Your task to perform on an android device: turn on data saver in the chrome app Image 0: 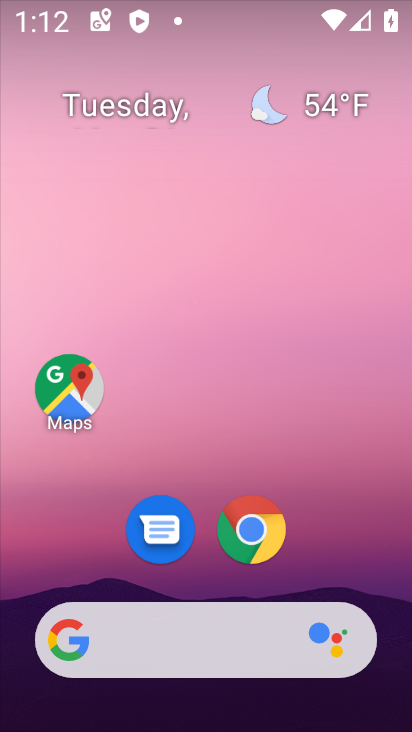
Step 0: click (254, 528)
Your task to perform on an android device: turn on data saver in the chrome app Image 1: 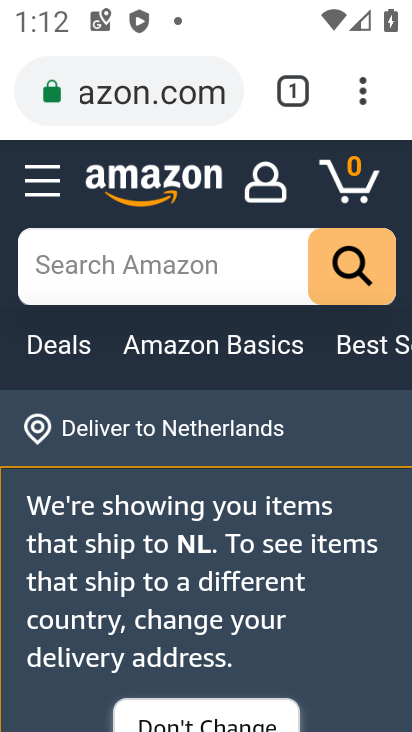
Step 1: click (365, 88)
Your task to perform on an android device: turn on data saver in the chrome app Image 2: 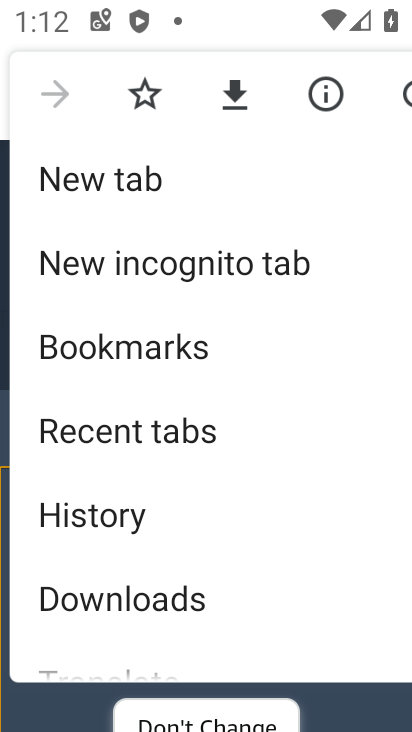
Step 2: drag from (133, 469) to (178, 365)
Your task to perform on an android device: turn on data saver in the chrome app Image 3: 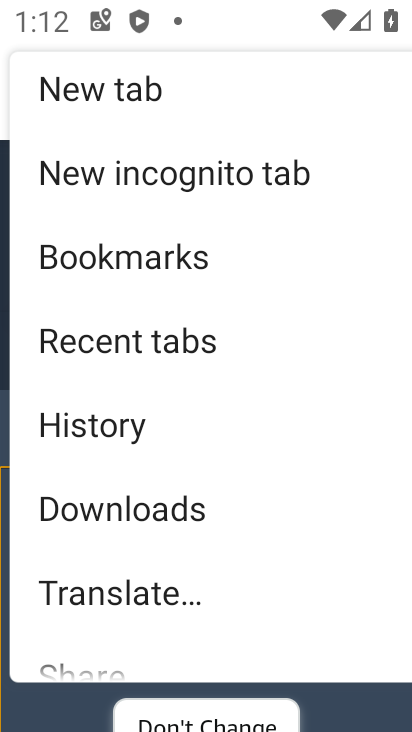
Step 3: drag from (119, 456) to (182, 371)
Your task to perform on an android device: turn on data saver in the chrome app Image 4: 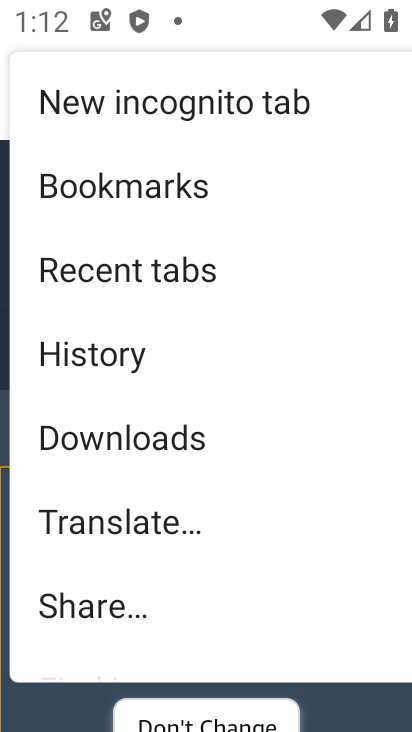
Step 4: drag from (116, 473) to (181, 380)
Your task to perform on an android device: turn on data saver in the chrome app Image 5: 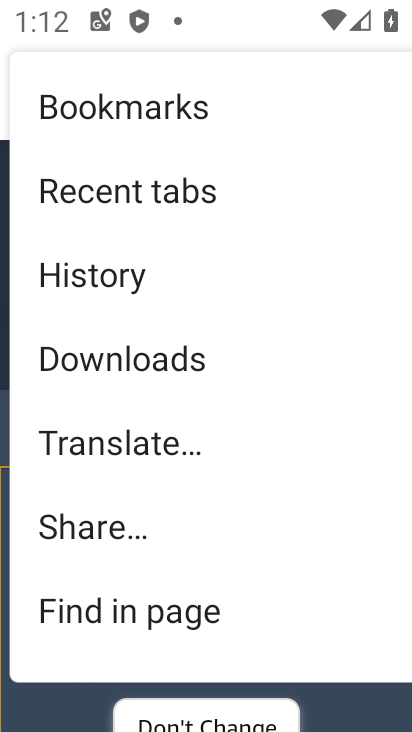
Step 5: drag from (122, 478) to (191, 388)
Your task to perform on an android device: turn on data saver in the chrome app Image 6: 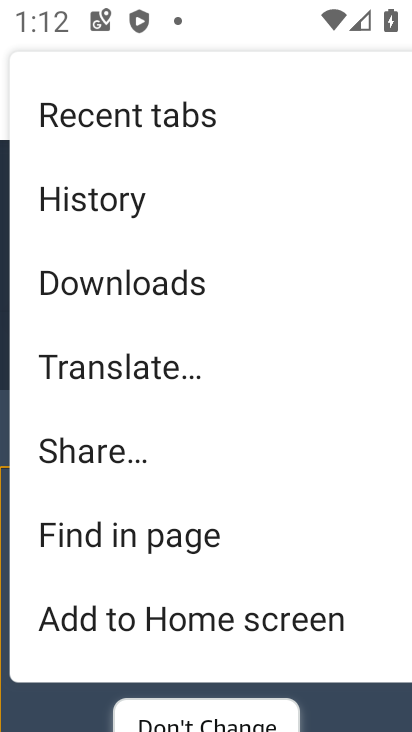
Step 6: drag from (112, 486) to (189, 396)
Your task to perform on an android device: turn on data saver in the chrome app Image 7: 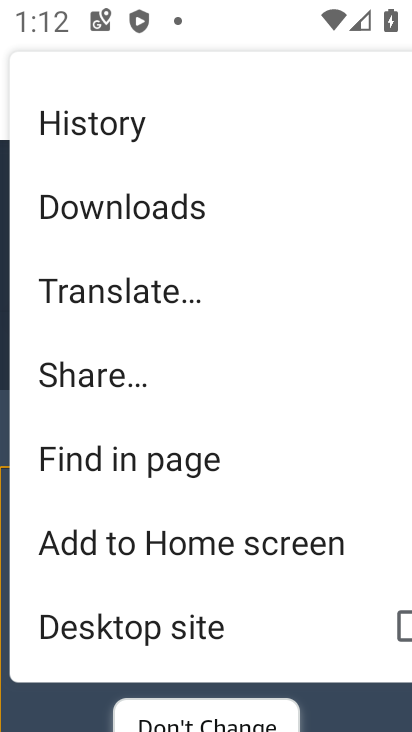
Step 7: drag from (136, 482) to (205, 394)
Your task to perform on an android device: turn on data saver in the chrome app Image 8: 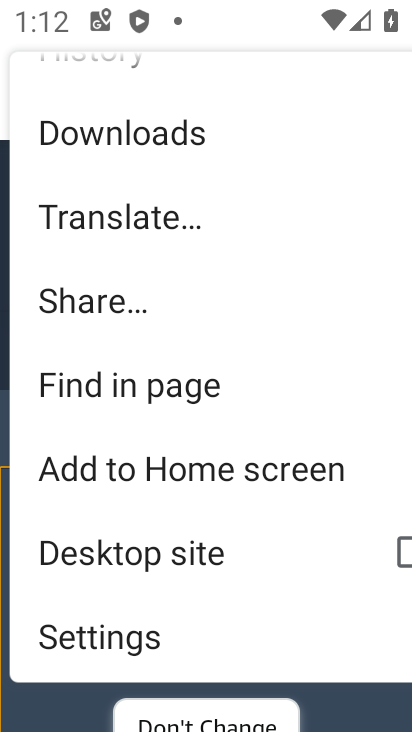
Step 8: drag from (116, 526) to (260, 376)
Your task to perform on an android device: turn on data saver in the chrome app Image 9: 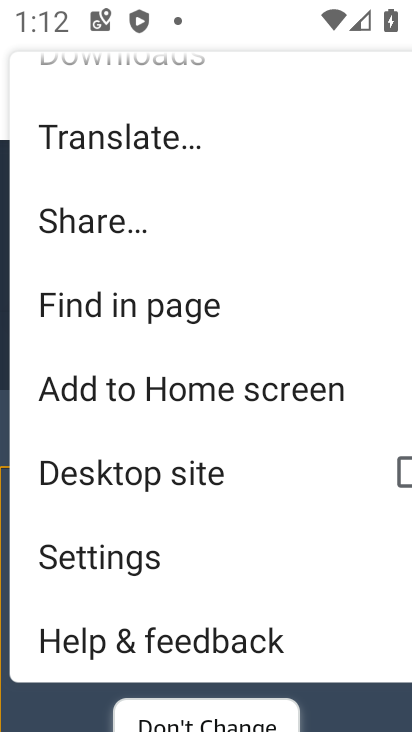
Step 9: click (139, 553)
Your task to perform on an android device: turn on data saver in the chrome app Image 10: 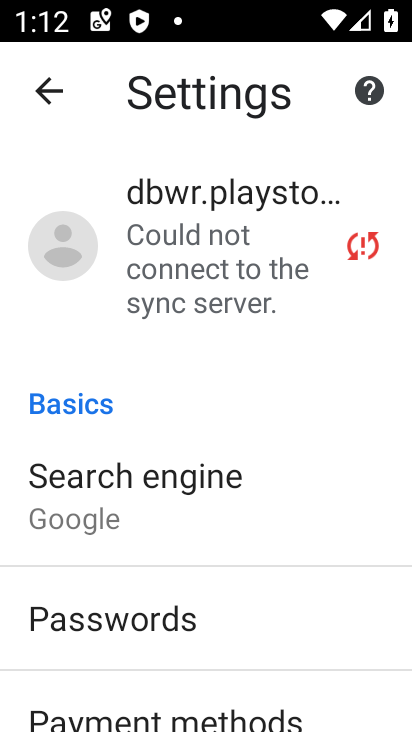
Step 10: drag from (210, 606) to (269, 478)
Your task to perform on an android device: turn on data saver in the chrome app Image 11: 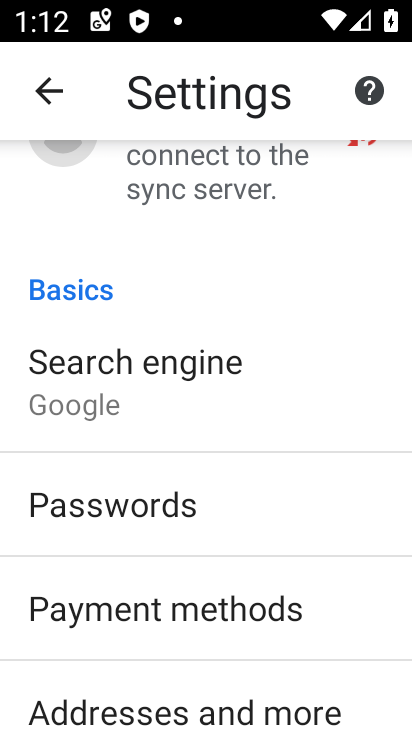
Step 11: drag from (170, 628) to (263, 509)
Your task to perform on an android device: turn on data saver in the chrome app Image 12: 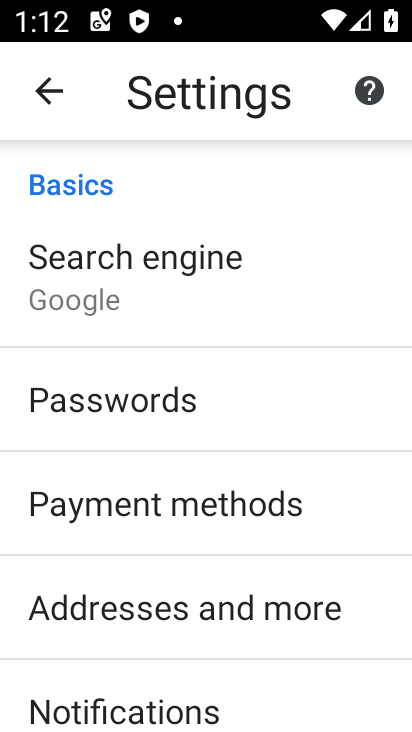
Step 12: drag from (168, 638) to (256, 515)
Your task to perform on an android device: turn on data saver in the chrome app Image 13: 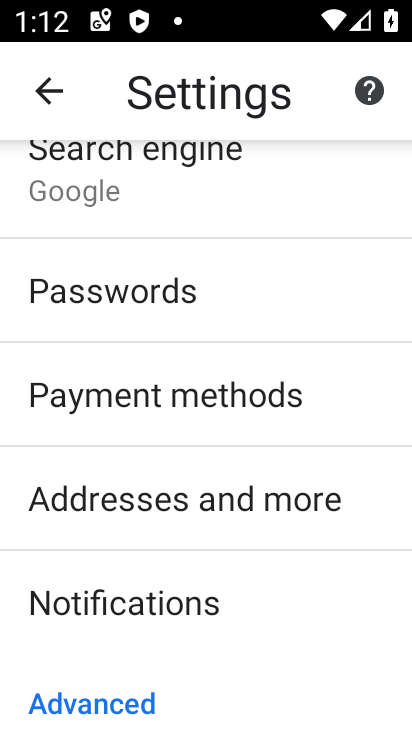
Step 13: drag from (176, 652) to (238, 542)
Your task to perform on an android device: turn on data saver in the chrome app Image 14: 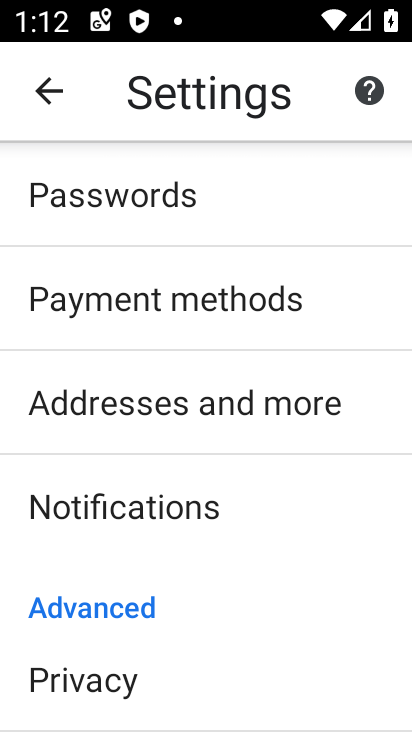
Step 14: drag from (192, 594) to (233, 475)
Your task to perform on an android device: turn on data saver in the chrome app Image 15: 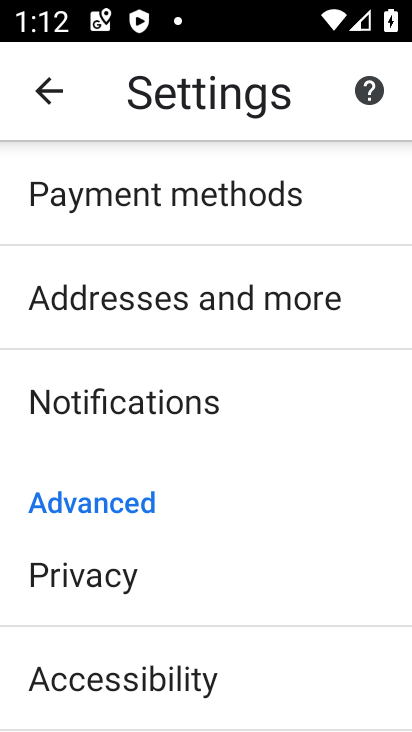
Step 15: drag from (169, 597) to (236, 497)
Your task to perform on an android device: turn on data saver in the chrome app Image 16: 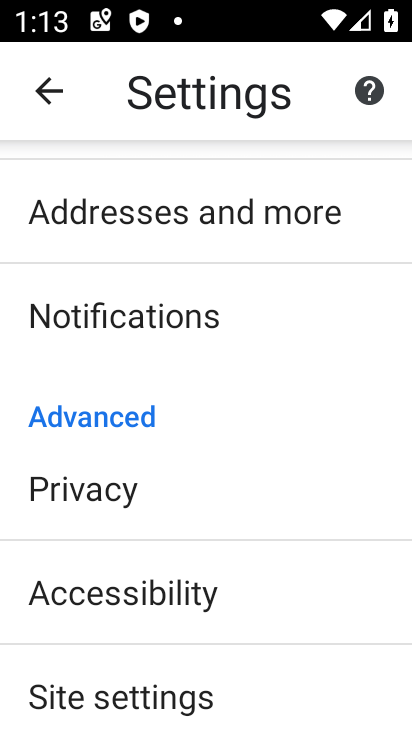
Step 16: drag from (147, 632) to (243, 494)
Your task to perform on an android device: turn on data saver in the chrome app Image 17: 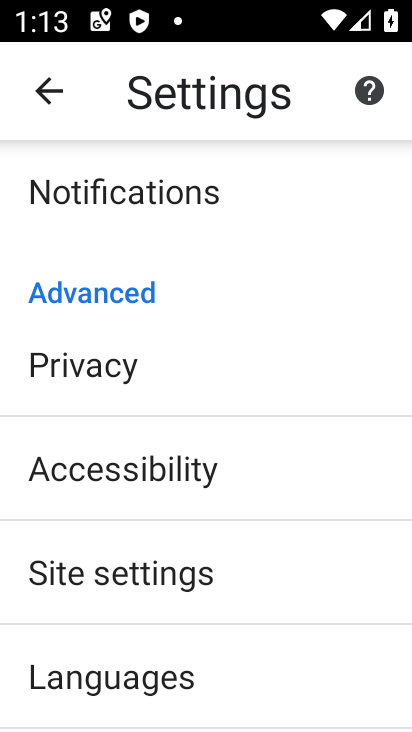
Step 17: drag from (176, 601) to (272, 453)
Your task to perform on an android device: turn on data saver in the chrome app Image 18: 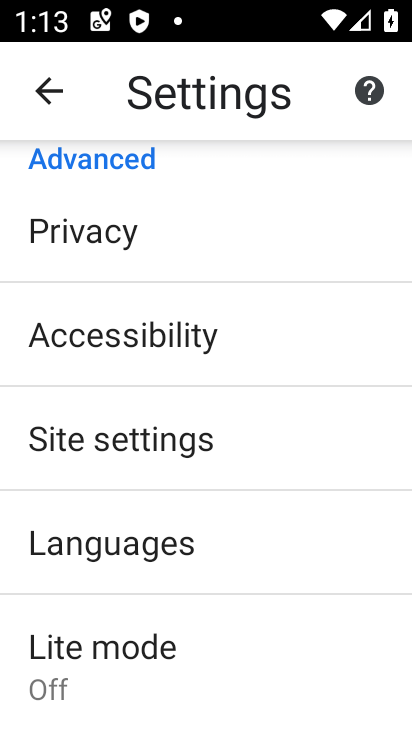
Step 18: click (133, 647)
Your task to perform on an android device: turn on data saver in the chrome app Image 19: 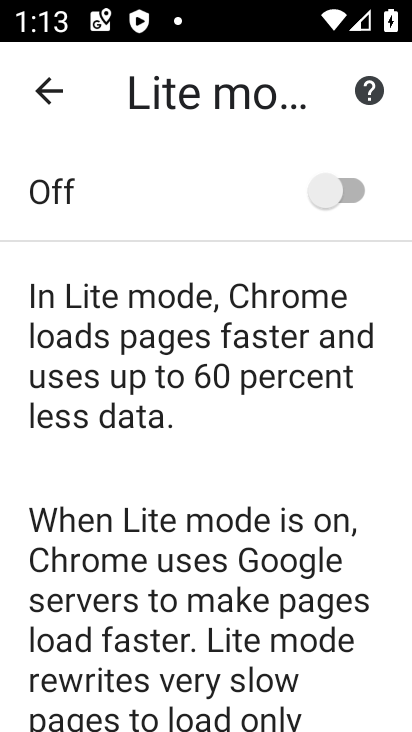
Step 19: click (323, 192)
Your task to perform on an android device: turn on data saver in the chrome app Image 20: 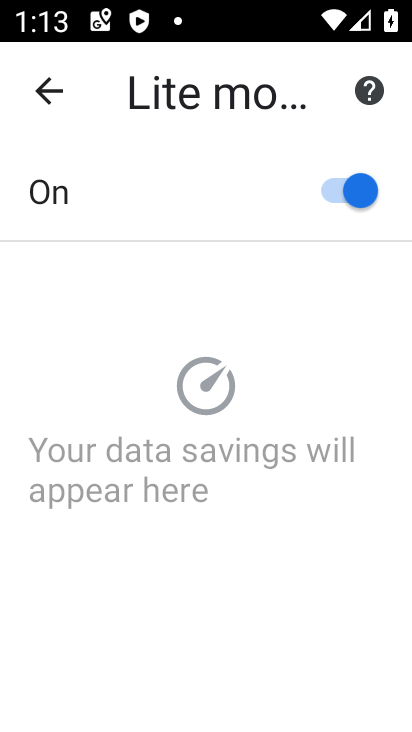
Step 20: task complete